Your task to perform on an android device: check battery use Image 0: 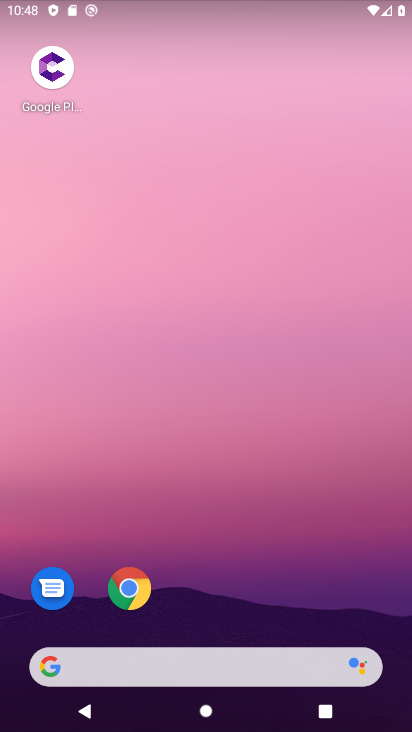
Step 0: press home button
Your task to perform on an android device: check battery use Image 1: 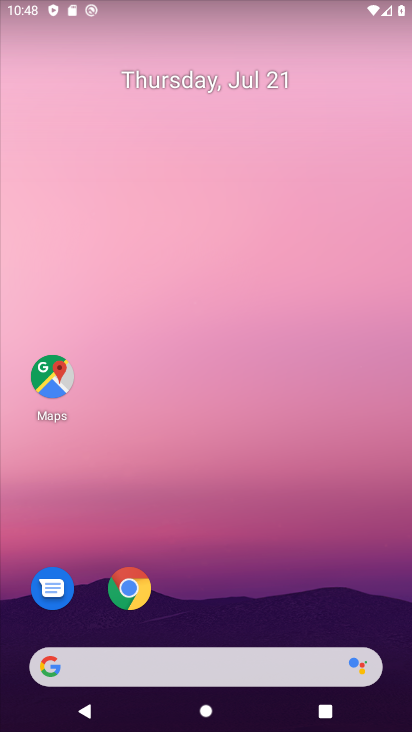
Step 1: drag from (216, 624) to (226, 38)
Your task to perform on an android device: check battery use Image 2: 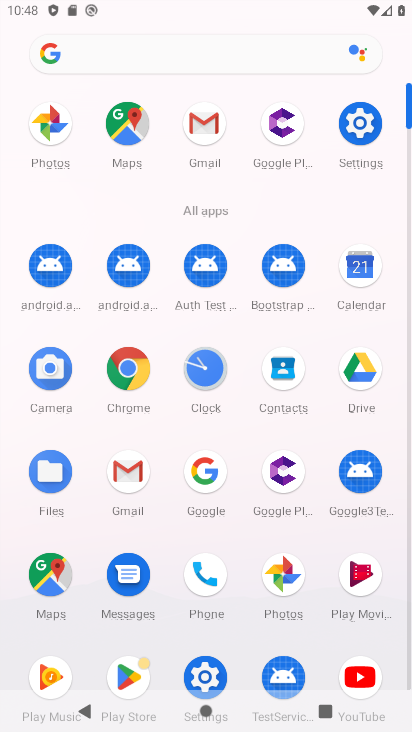
Step 2: click (362, 114)
Your task to perform on an android device: check battery use Image 3: 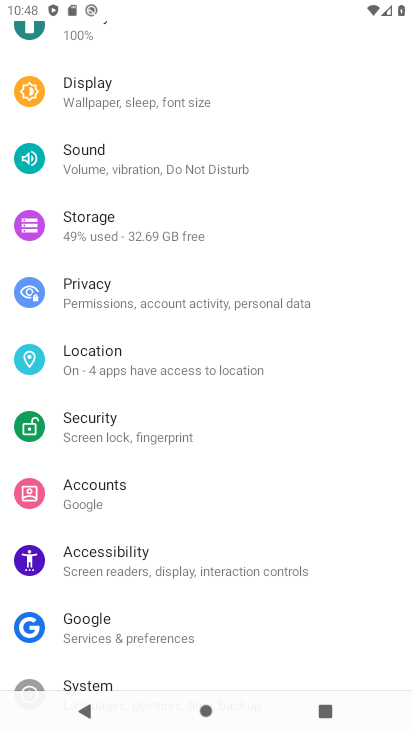
Step 3: drag from (118, 76) to (117, 366)
Your task to perform on an android device: check battery use Image 4: 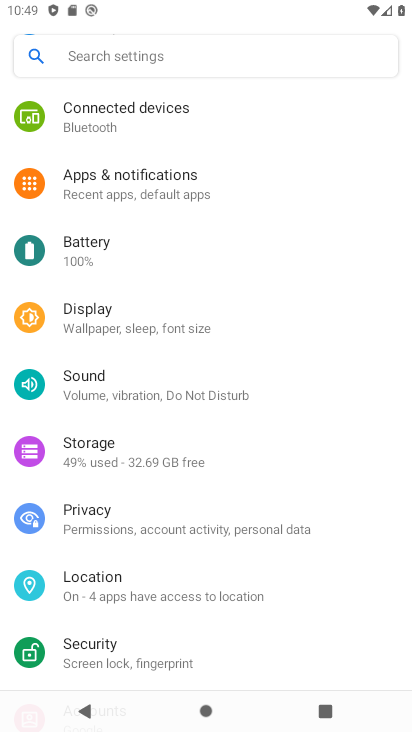
Step 4: click (120, 246)
Your task to perform on an android device: check battery use Image 5: 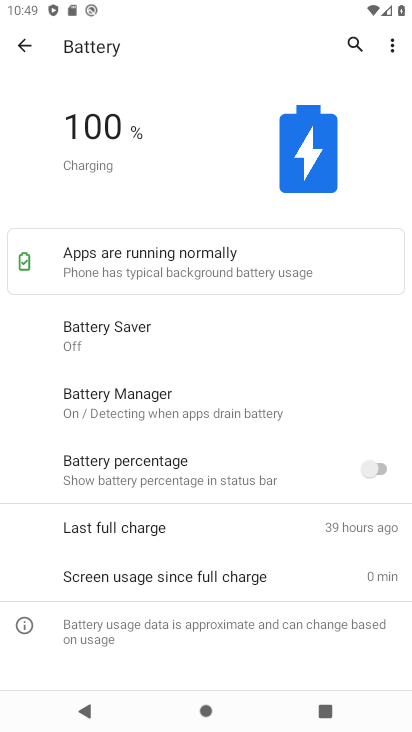
Step 5: click (396, 45)
Your task to perform on an android device: check battery use Image 6: 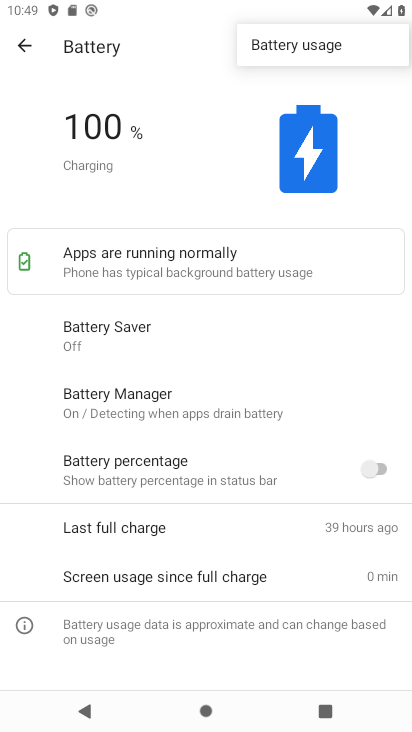
Step 6: click (306, 55)
Your task to perform on an android device: check battery use Image 7: 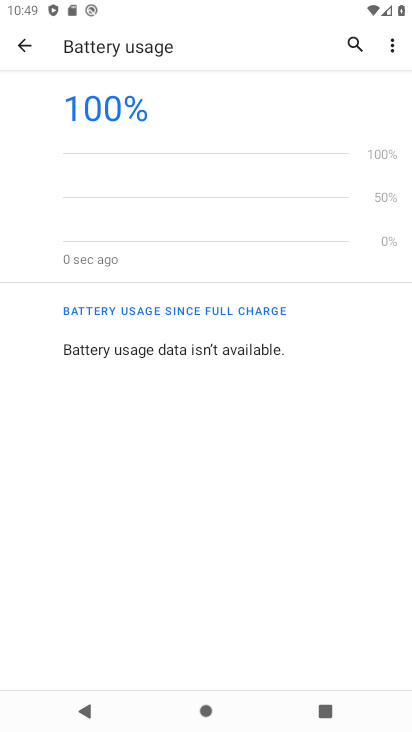
Step 7: task complete